Your task to perform on an android device: Show me popular games on the Play Store Image 0: 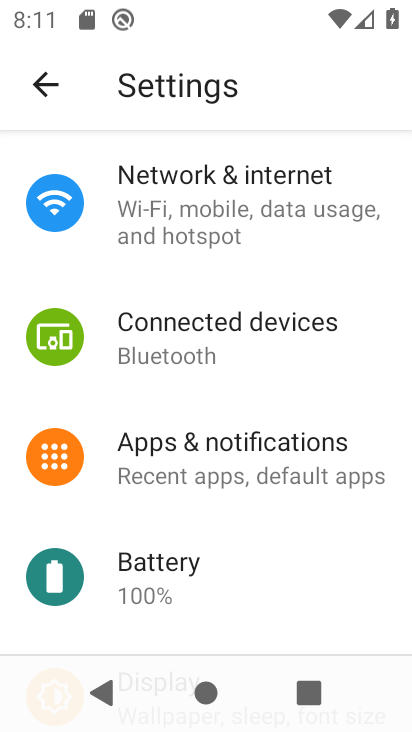
Step 0: press home button
Your task to perform on an android device: Show me popular games on the Play Store Image 1: 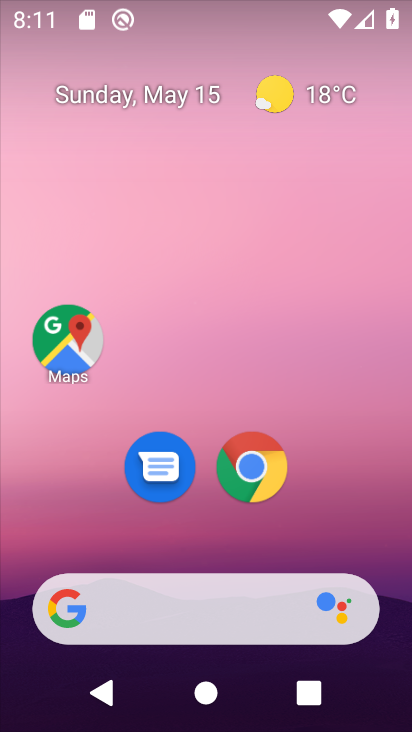
Step 1: drag from (219, 447) to (304, 5)
Your task to perform on an android device: Show me popular games on the Play Store Image 2: 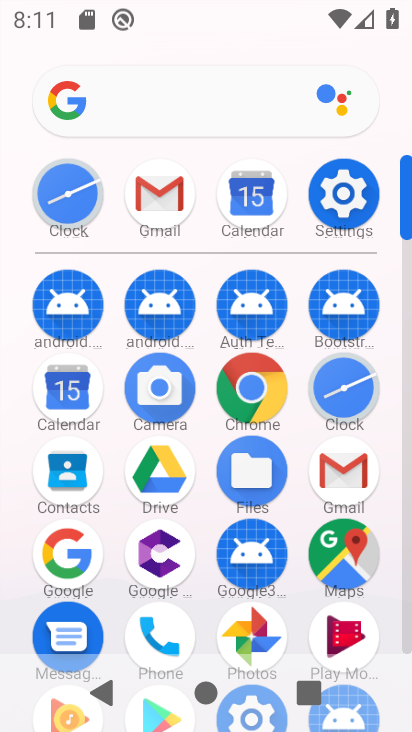
Step 2: drag from (120, 590) to (133, 254)
Your task to perform on an android device: Show me popular games on the Play Store Image 3: 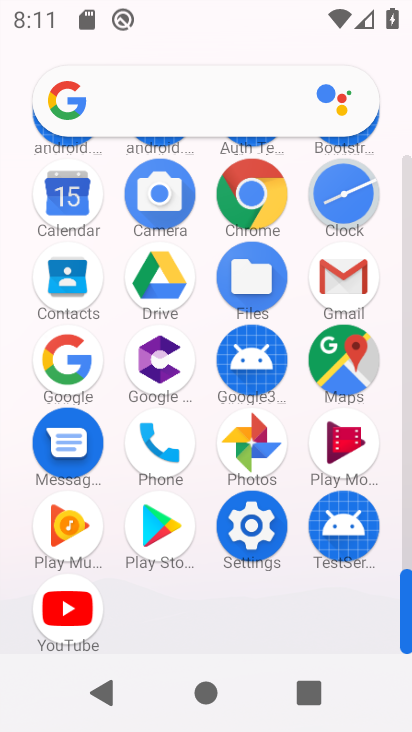
Step 3: click (160, 534)
Your task to perform on an android device: Show me popular games on the Play Store Image 4: 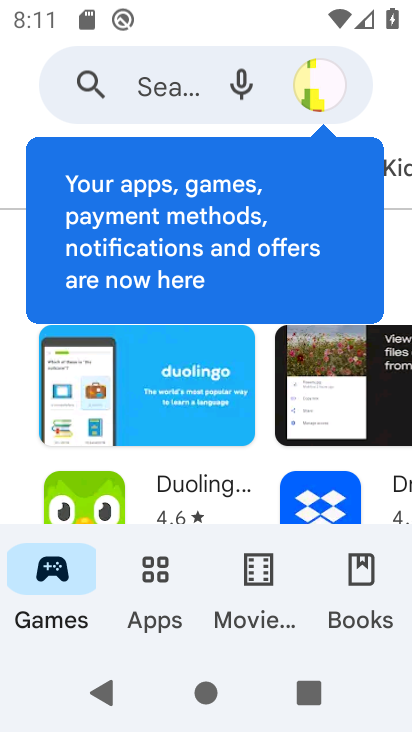
Step 4: click (43, 586)
Your task to perform on an android device: Show me popular games on the Play Store Image 5: 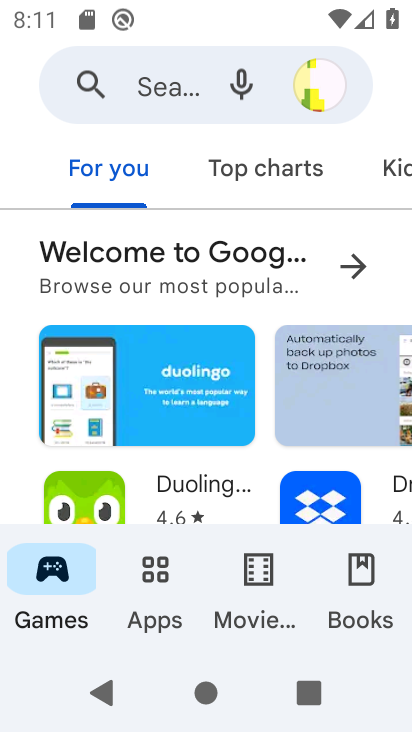
Step 5: click (260, 170)
Your task to perform on an android device: Show me popular games on the Play Store Image 6: 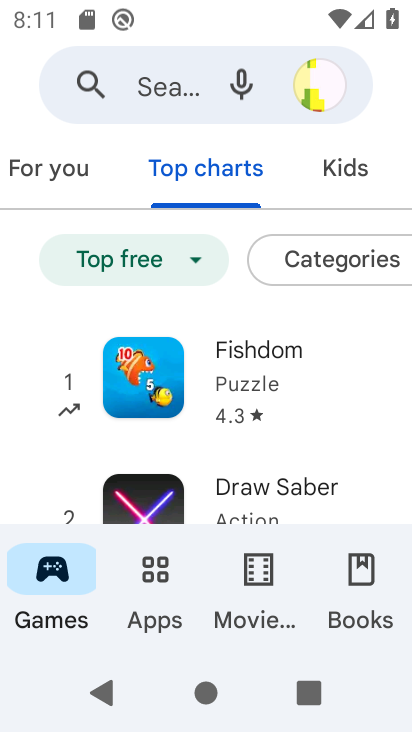
Step 6: task complete